Your task to perform on an android device: Open Amazon Image 0: 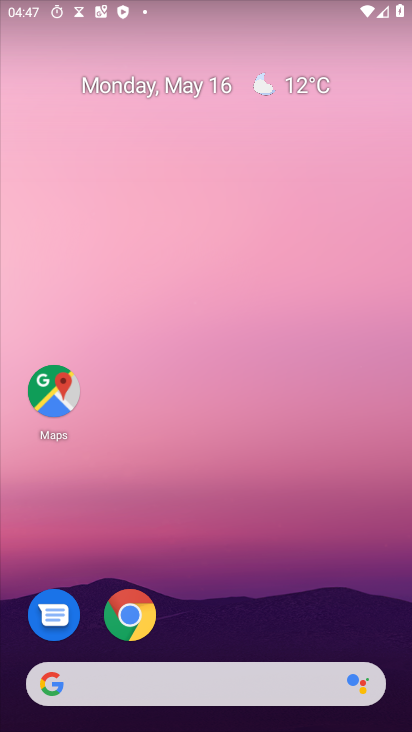
Step 0: click (366, 482)
Your task to perform on an android device: Open Amazon Image 1: 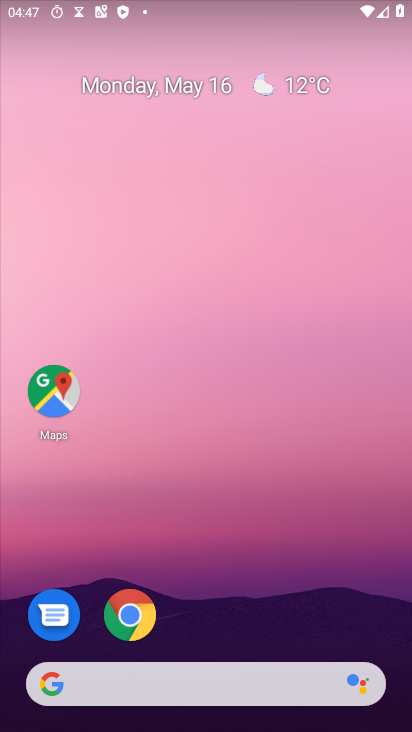
Step 1: drag from (272, 658) to (127, 23)
Your task to perform on an android device: Open Amazon Image 2: 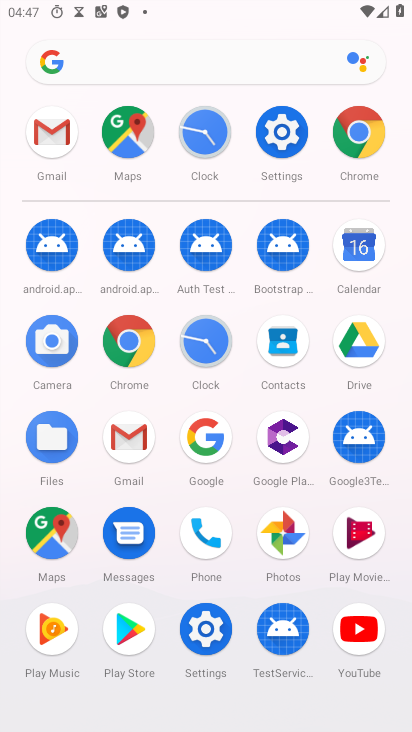
Step 2: click (264, 142)
Your task to perform on an android device: Open Amazon Image 3: 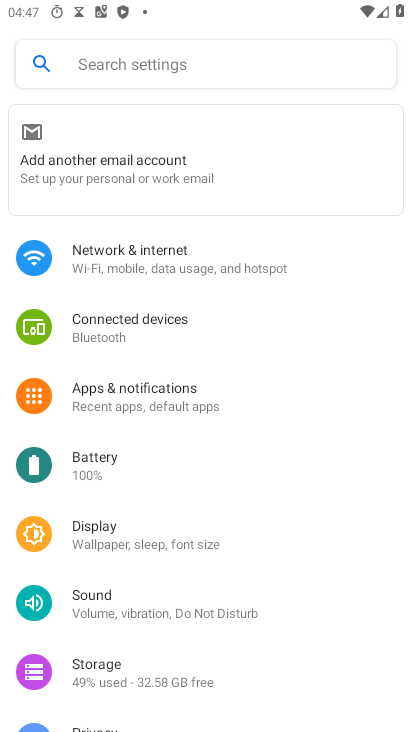
Step 3: click (154, 268)
Your task to perform on an android device: Open Amazon Image 4: 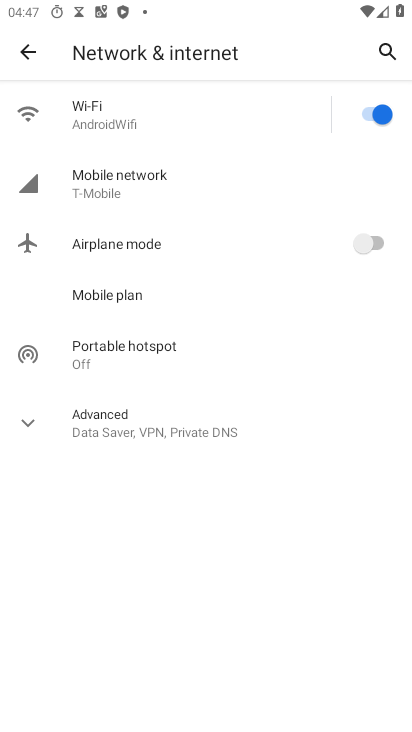
Step 4: click (27, 49)
Your task to perform on an android device: Open Amazon Image 5: 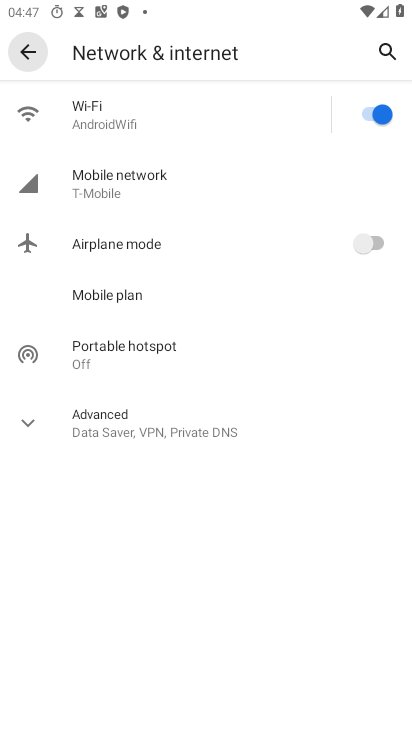
Step 5: click (28, 46)
Your task to perform on an android device: Open Amazon Image 6: 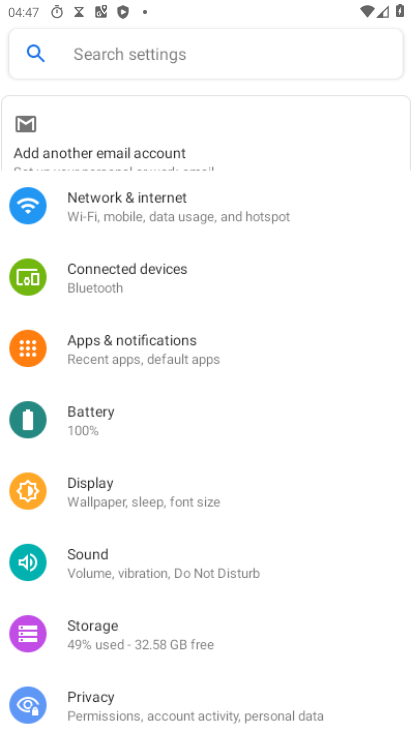
Step 6: click (27, 45)
Your task to perform on an android device: Open Amazon Image 7: 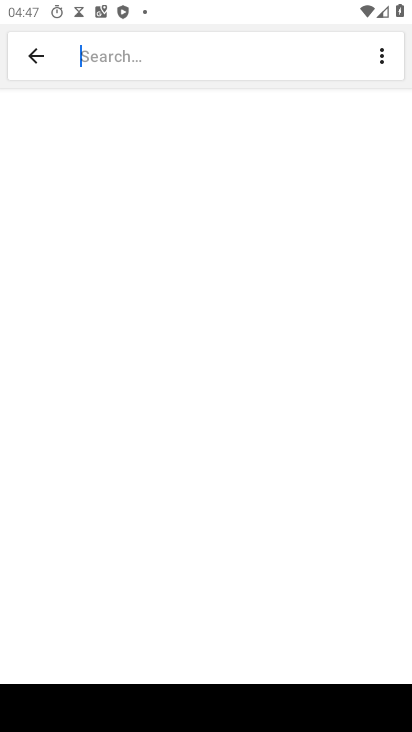
Step 7: click (37, 46)
Your task to perform on an android device: Open Amazon Image 8: 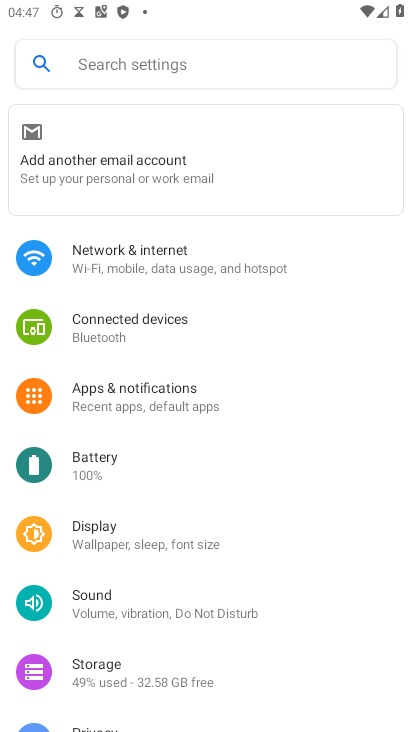
Step 8: drag from (105, 466) to (22, 49)
Your task to perform on an android device: Open Amazon Image 9: 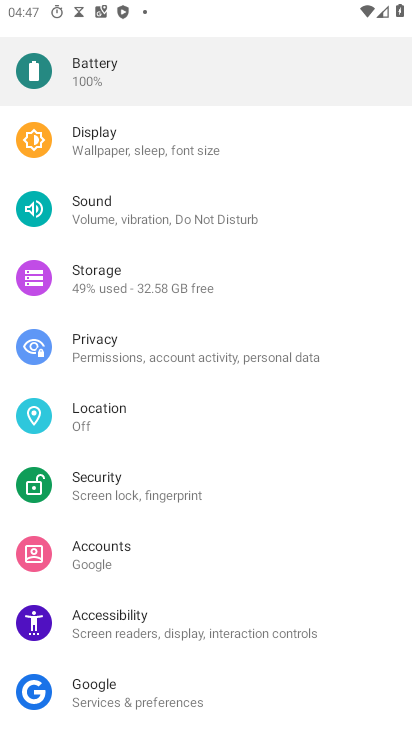
Step 9: drag from (180, 597) to (216, 18)
Your task to perform on an android device: Open Amazon Image 10: 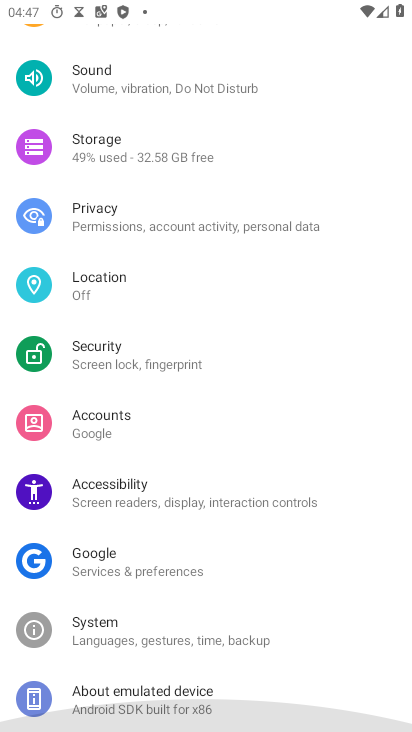
Step 10: drag from (286, 359) to (339, 14)
Your task to perform on an android device: Open Amazon Image 11: 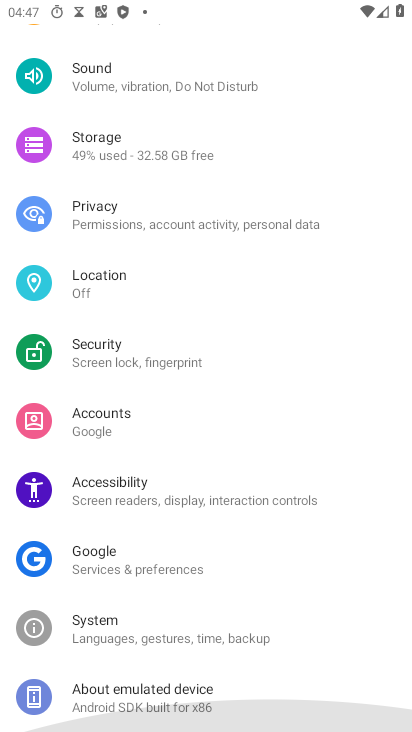
Step 11: drag from (324, 436) to (292, 47)
Your task to perform on an android device: Open Amazon Image 12: 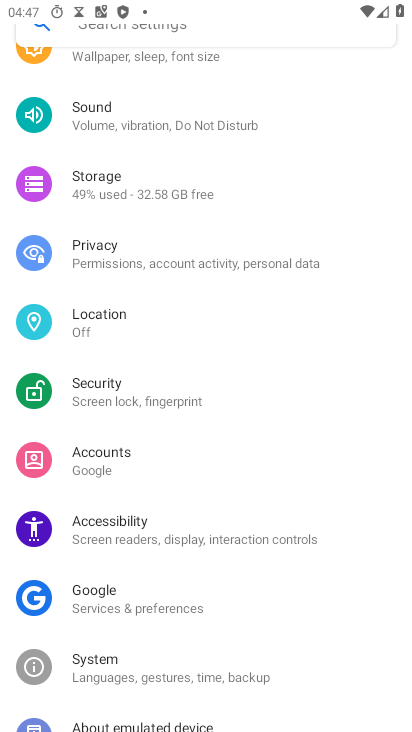
Step 12: press back button
Your task to perform on an android device: Open Amazon Image 13: 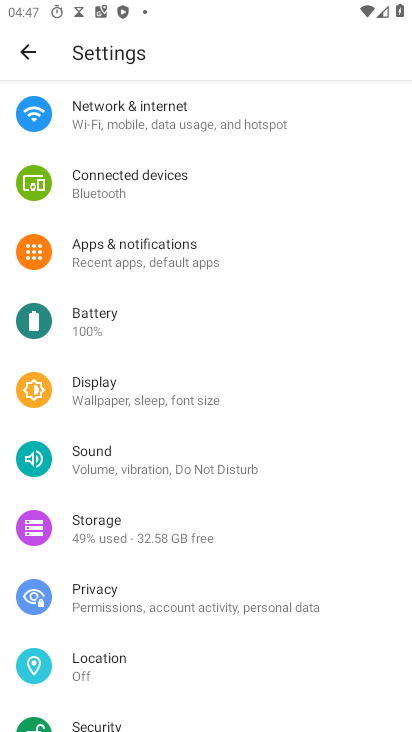
Step 13: press home button
Your task to perform on an android device: Open Amazon Image 14: 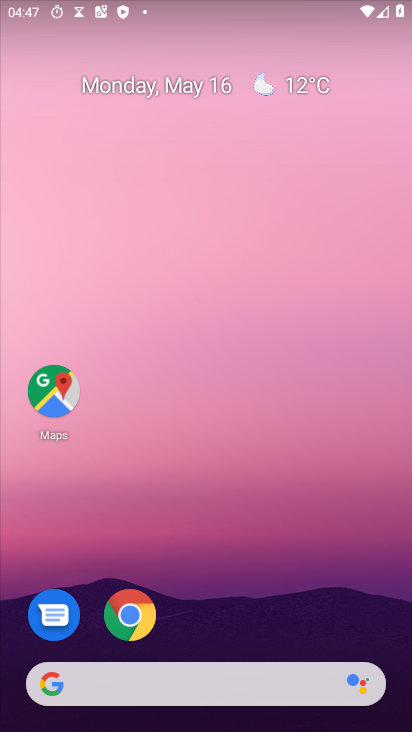
Step 14: drag from (278, 628) to (121, 165)
Your task to perform on an android device: Open Amazon Image 15: 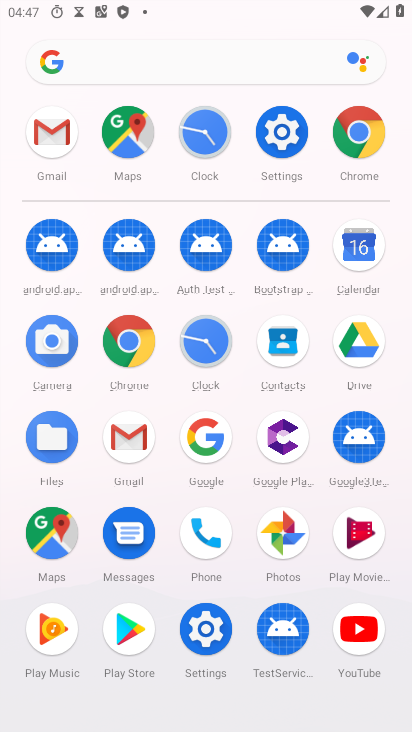
Step 15: click (351, 135)
Your task to perform on an android device: Open Amazon Image 16: 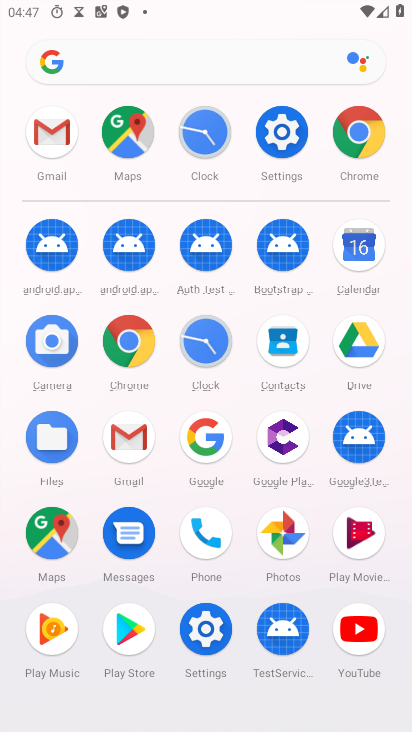
Step 16: click (351, 135)
Your task to perform on an android device: Open Amazon Image 17: 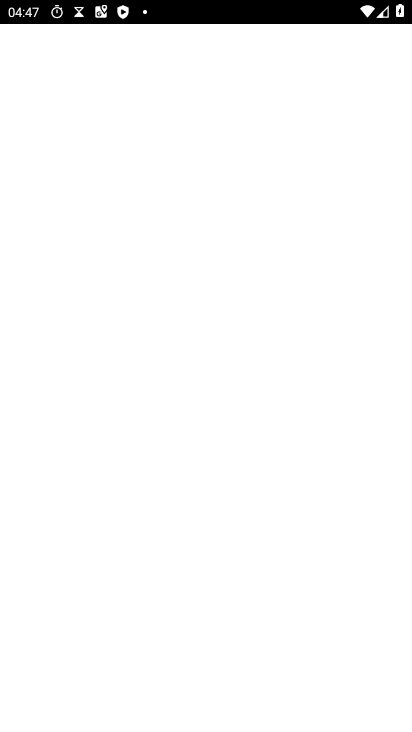
Step 17: click (351, 134)
Your task to perform on an android device: Open Amazon Image 18: 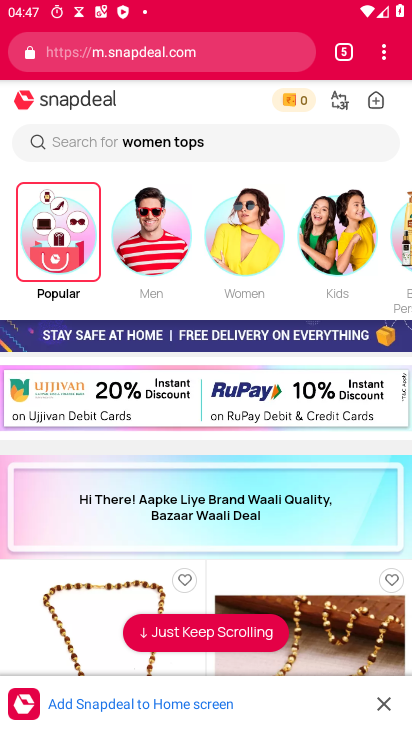
Step 18: click (381, 54)
Your task to perform on an android device: Open Amazon Image 19: 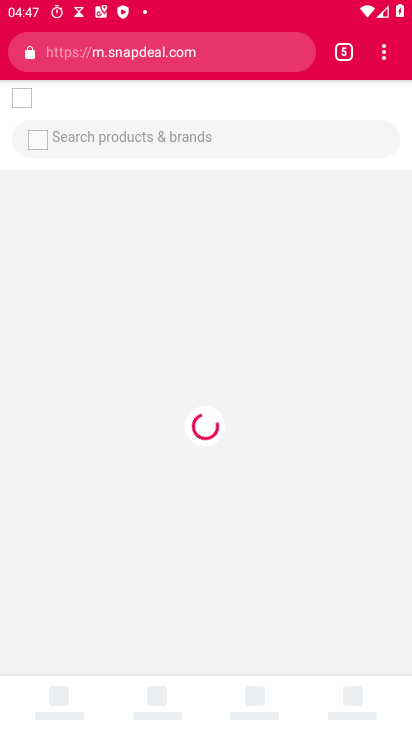
Step 19: click (377, 56)
Your task to perform on an android device: Open Amazon Image 20: 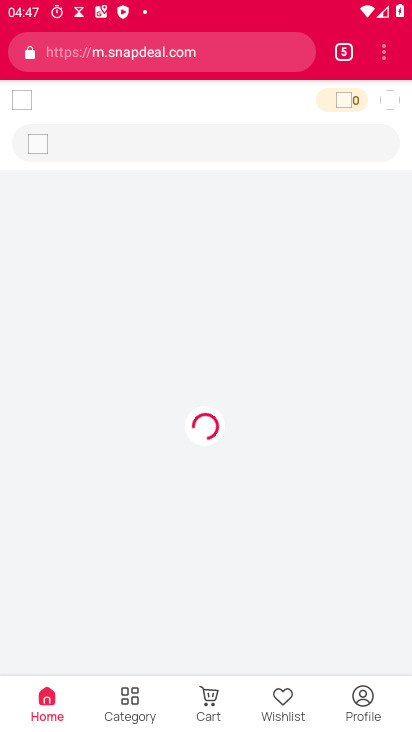
Step 20: click (377, 56)
Your task to perform on an android device: Open Amazon Image 21: 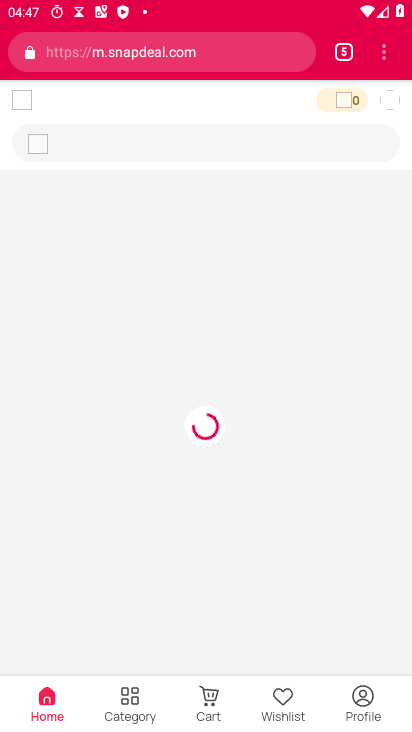
Step 21: click (377, 56)
Your task to perform on an android device: Open Amazon Image 22: 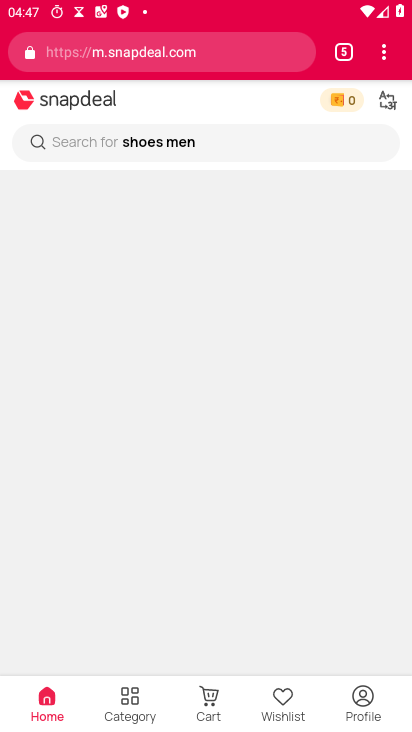
Step 22: click (379, 57)
Your task to perform on an android device: Open Amazon Image 23: 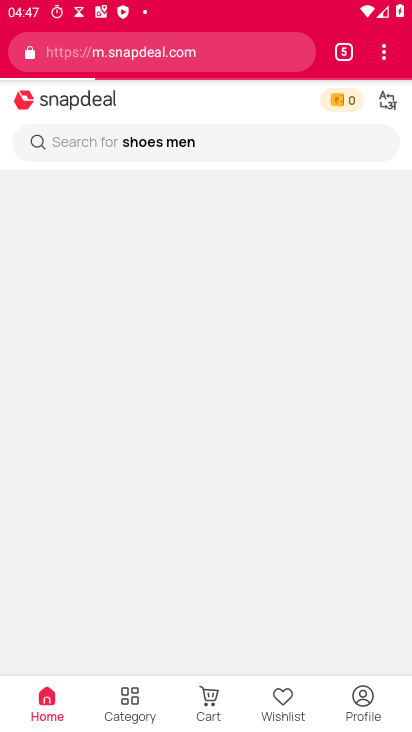
Step 23: drag from (379, 57) to (187, 138)
Your task to perform on an android device: Open Amazon Image 24: 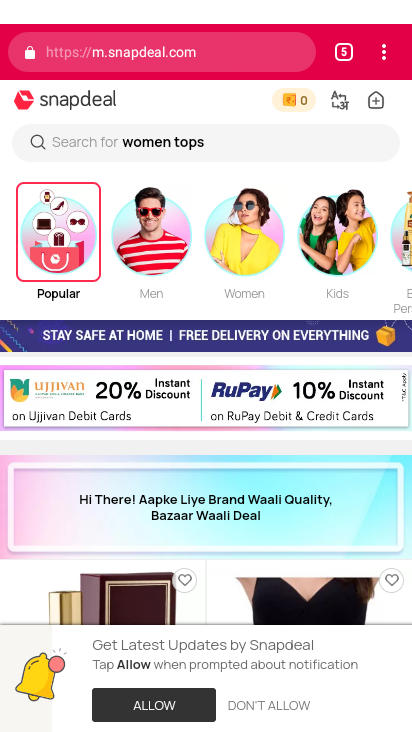
Step 24: click (197, 148)
Your task to perform on an android device: Open Amazon Image 25: 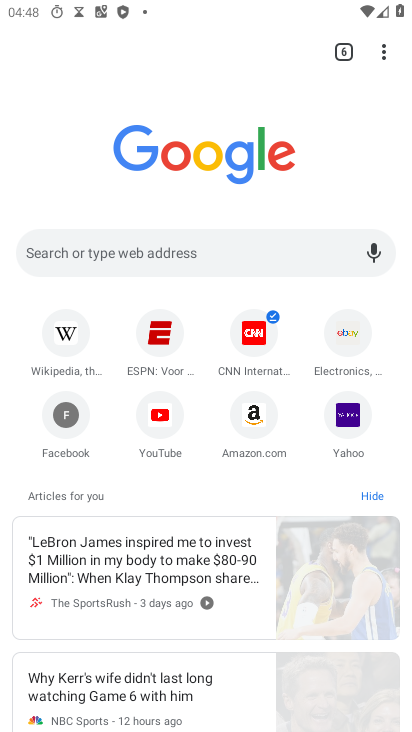
Step 25: click (205, 148)
Your task to perform on an android device: Open Amazon Image 26: 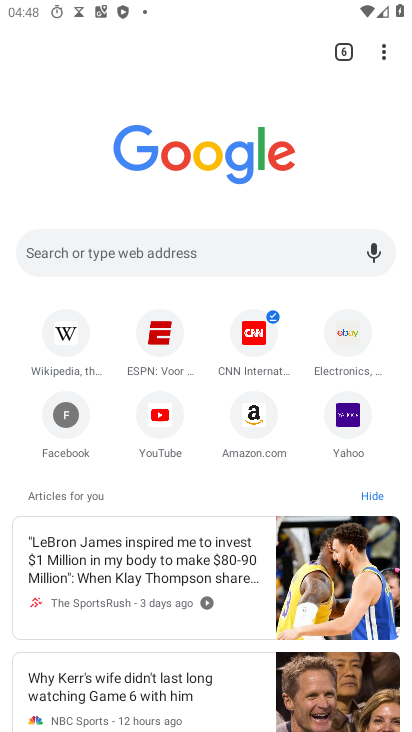
Step 26: click (252, 418)
Your task to perform on an android device: Open Amazon Image 27: 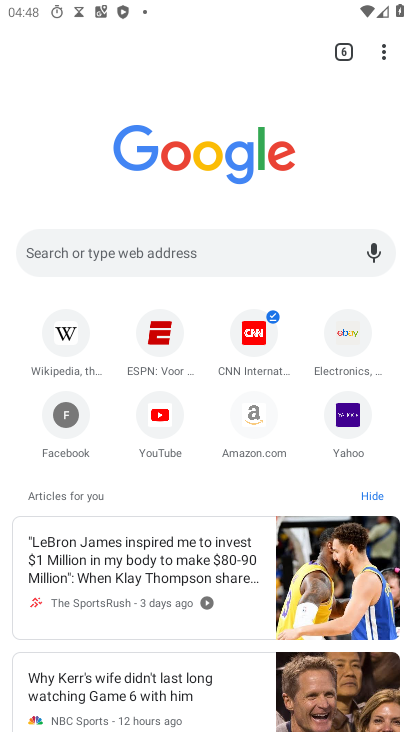
Step 27: click (249, 411)
Your task to perform on an android device: Open Amazon Image 28: 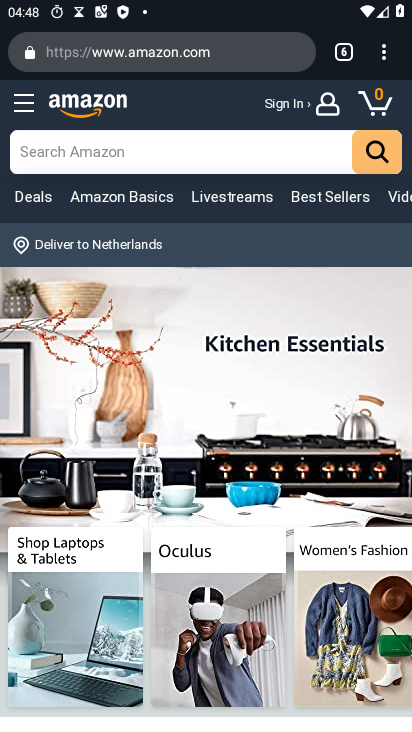
Step 28: task complete